Your task to perform on an android device: turn on the 12-hour format for clock Image 0: 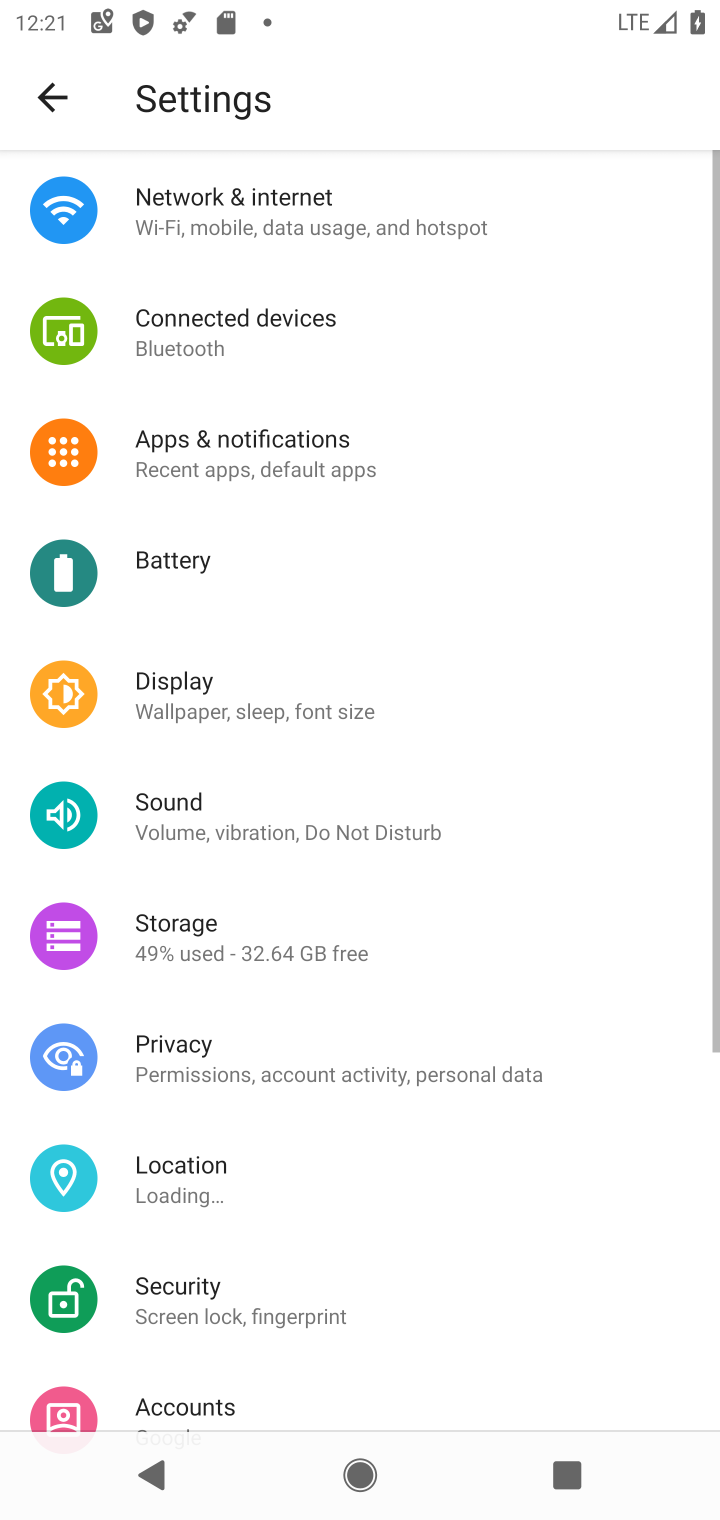
Step 0: press home button
Your task to perform on an android device: turn on the 12-hour format for clock Image 1: 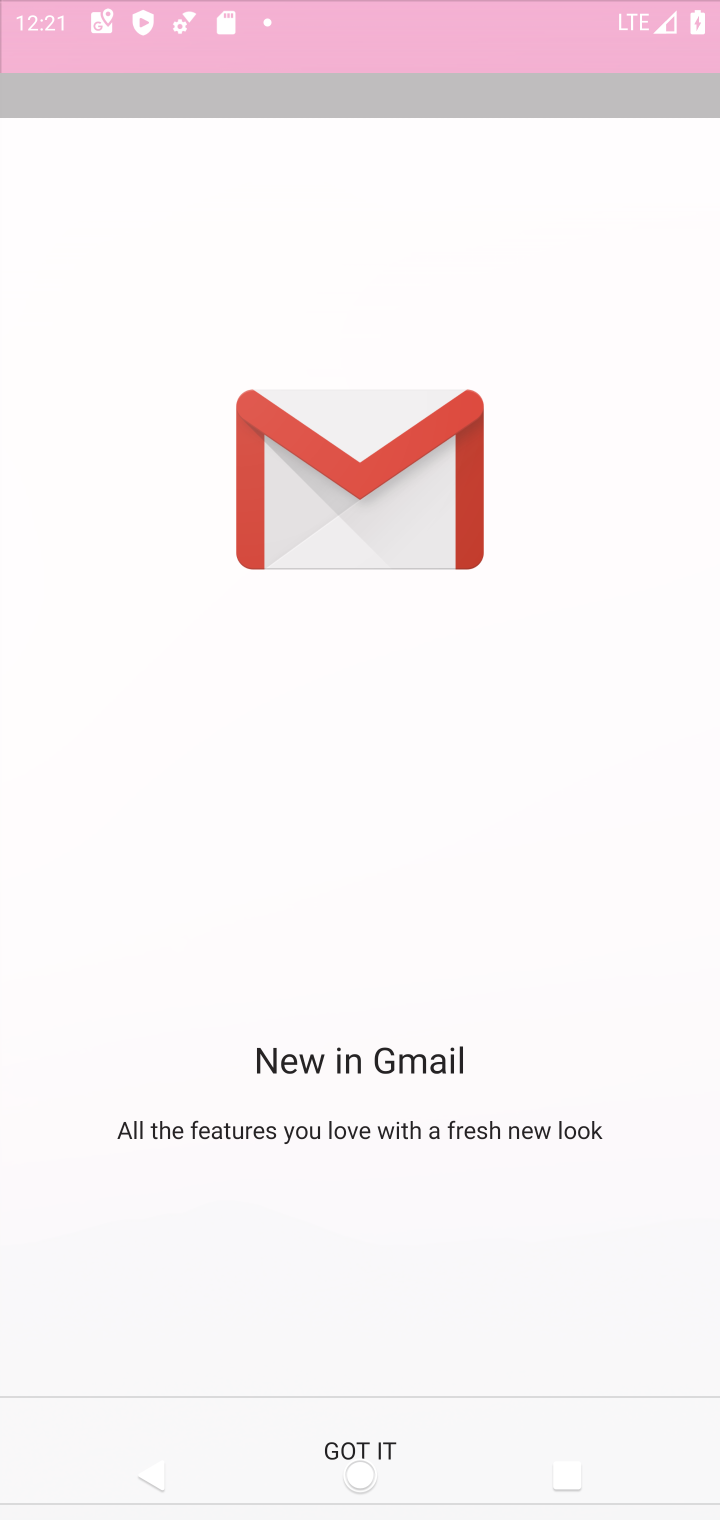
Step 1: press home button
Your task to perform on an android device: turn on the 12-hour format for clock Image 2: 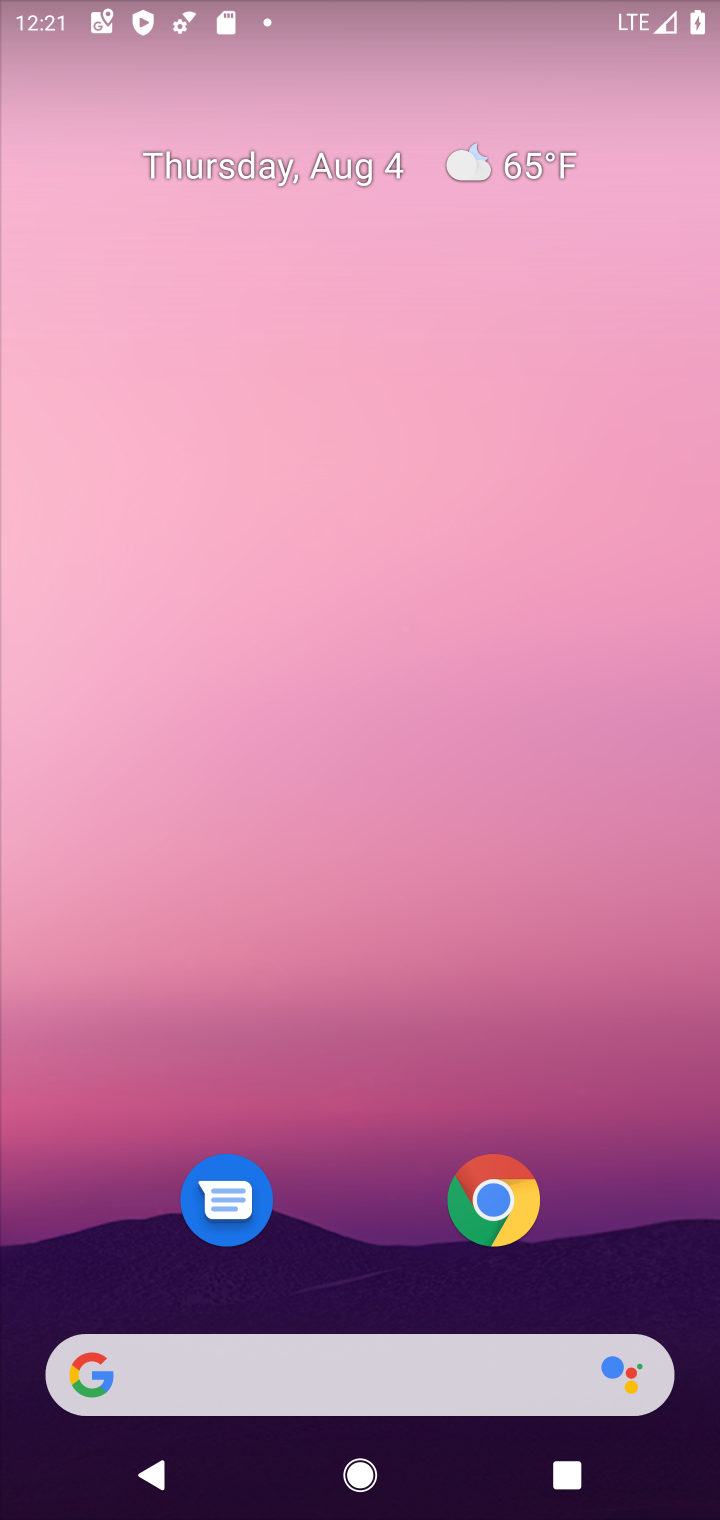
Step 2: drag from (409, 1171) to (372, 339)
Your task to perform on an android device: turn on the 12-hour format for clock Image 3: 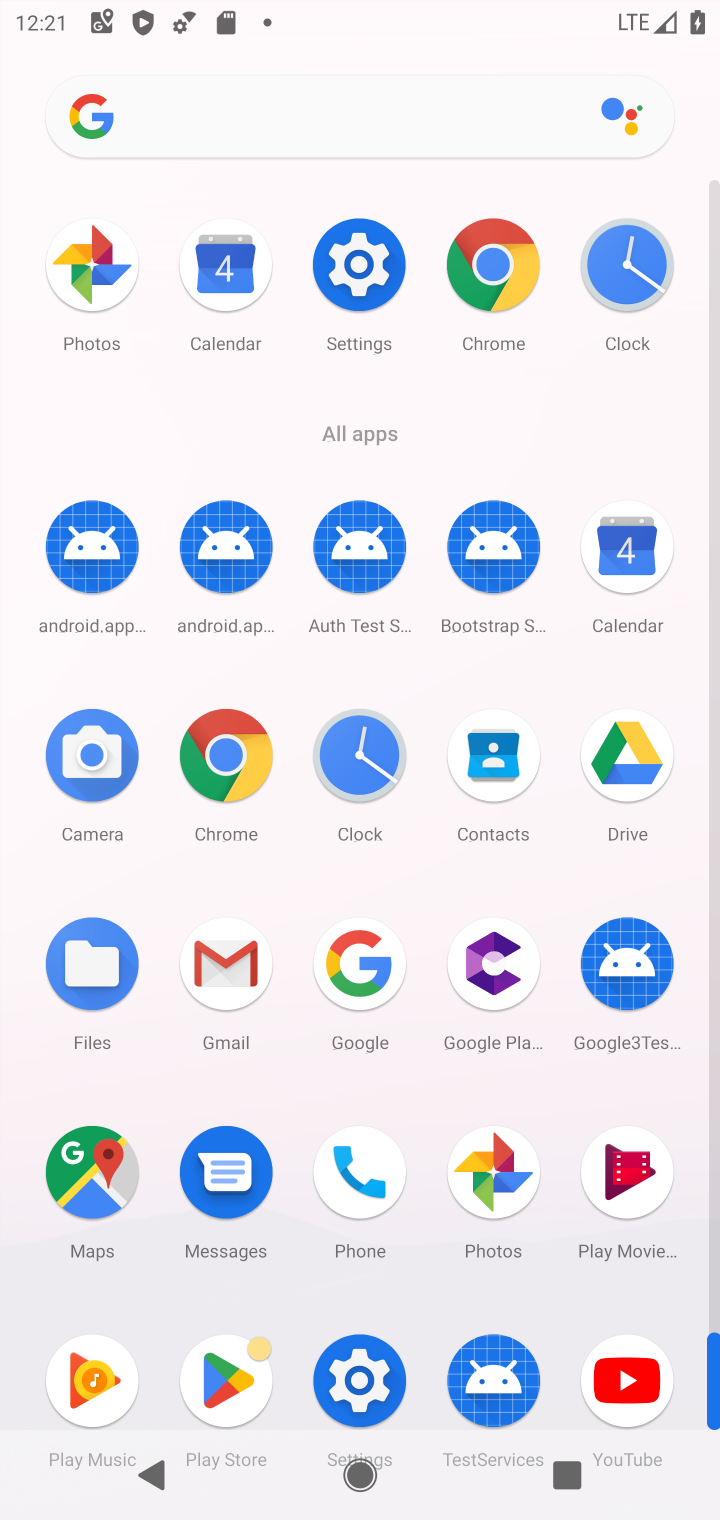
Step 3: click (623, 273)
Your task to perform on an android device: turn on the 12-hour format for clock Image 4: 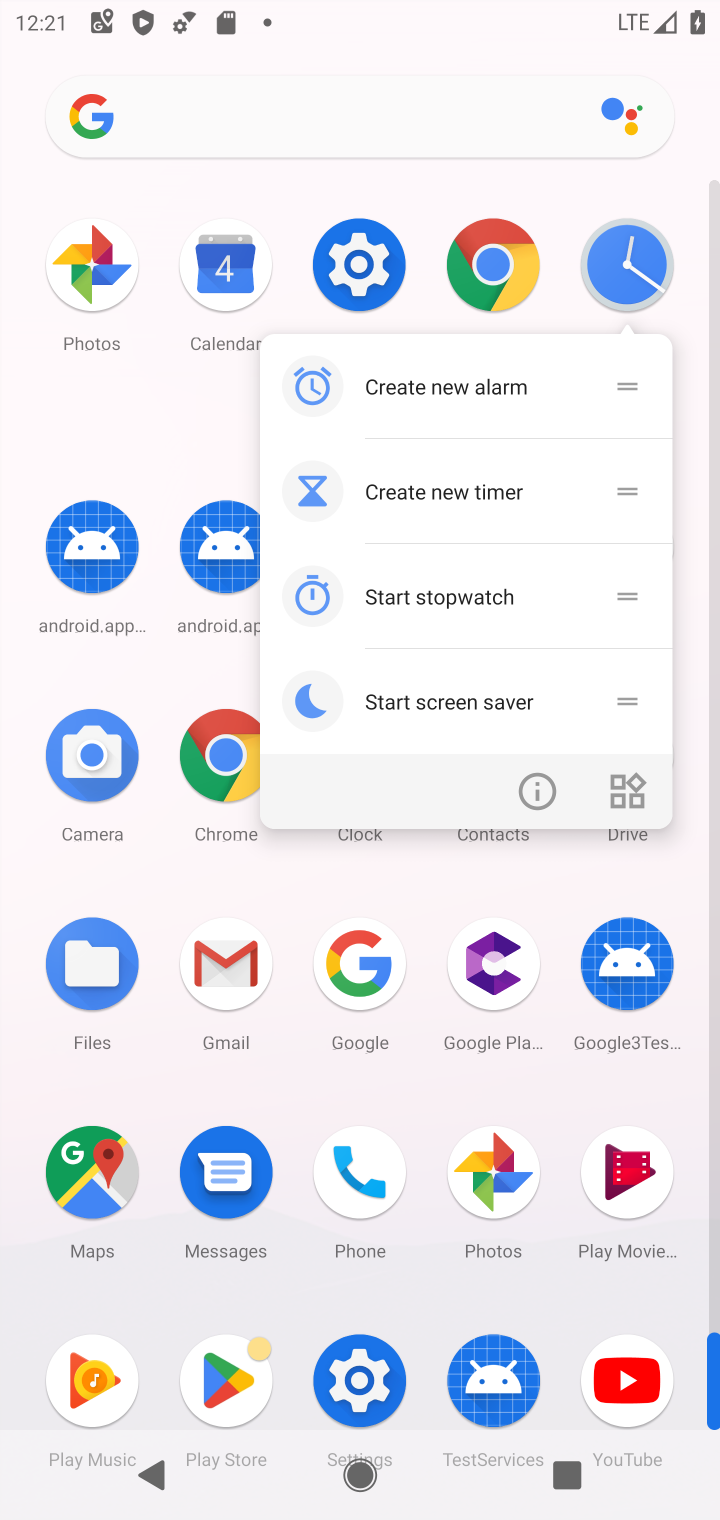
Step 4: click (623, 273)
Your task to perform on an android device: turn on the 12-hour format for clock Image 5: 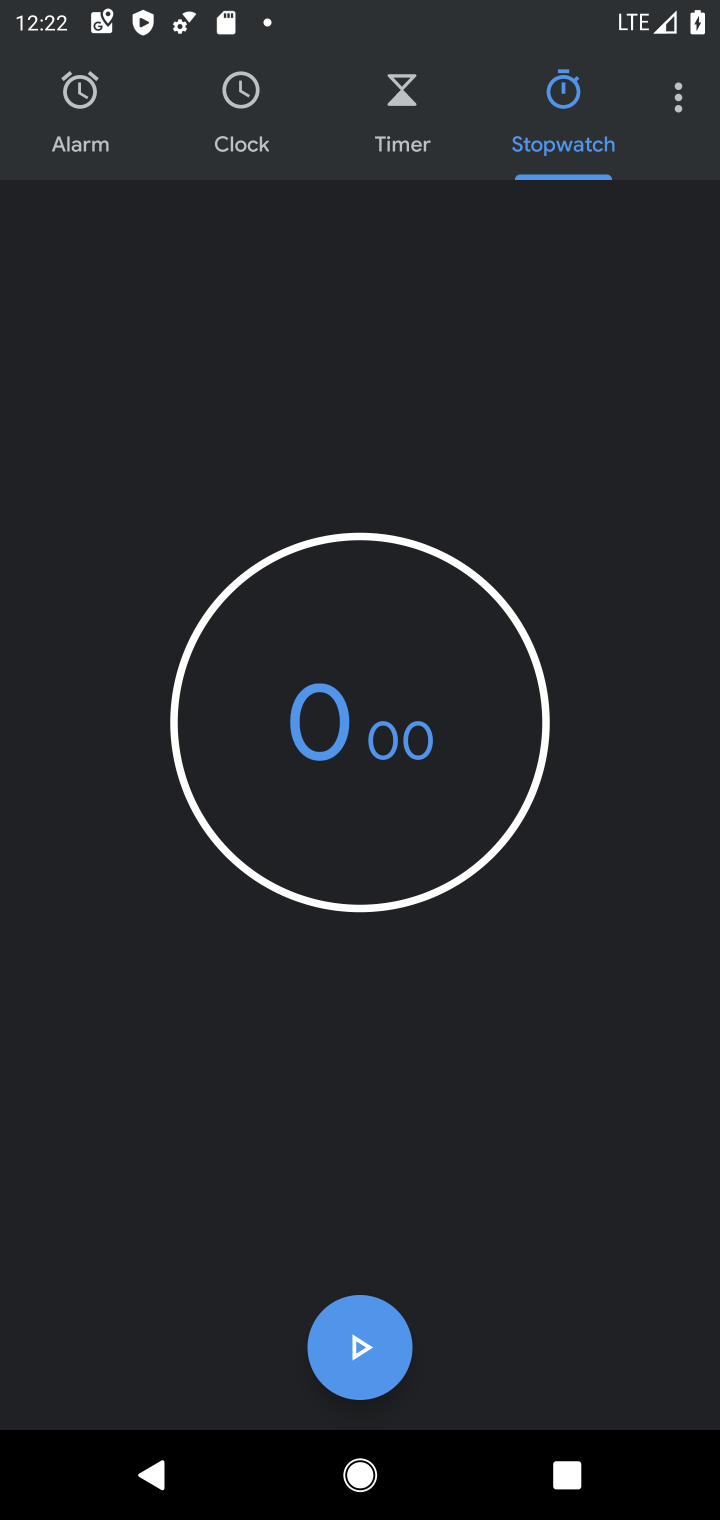
Step 5: click (695, 97)
Your task to perform on an android device: turn on the 12-hour format for clock Image 6: 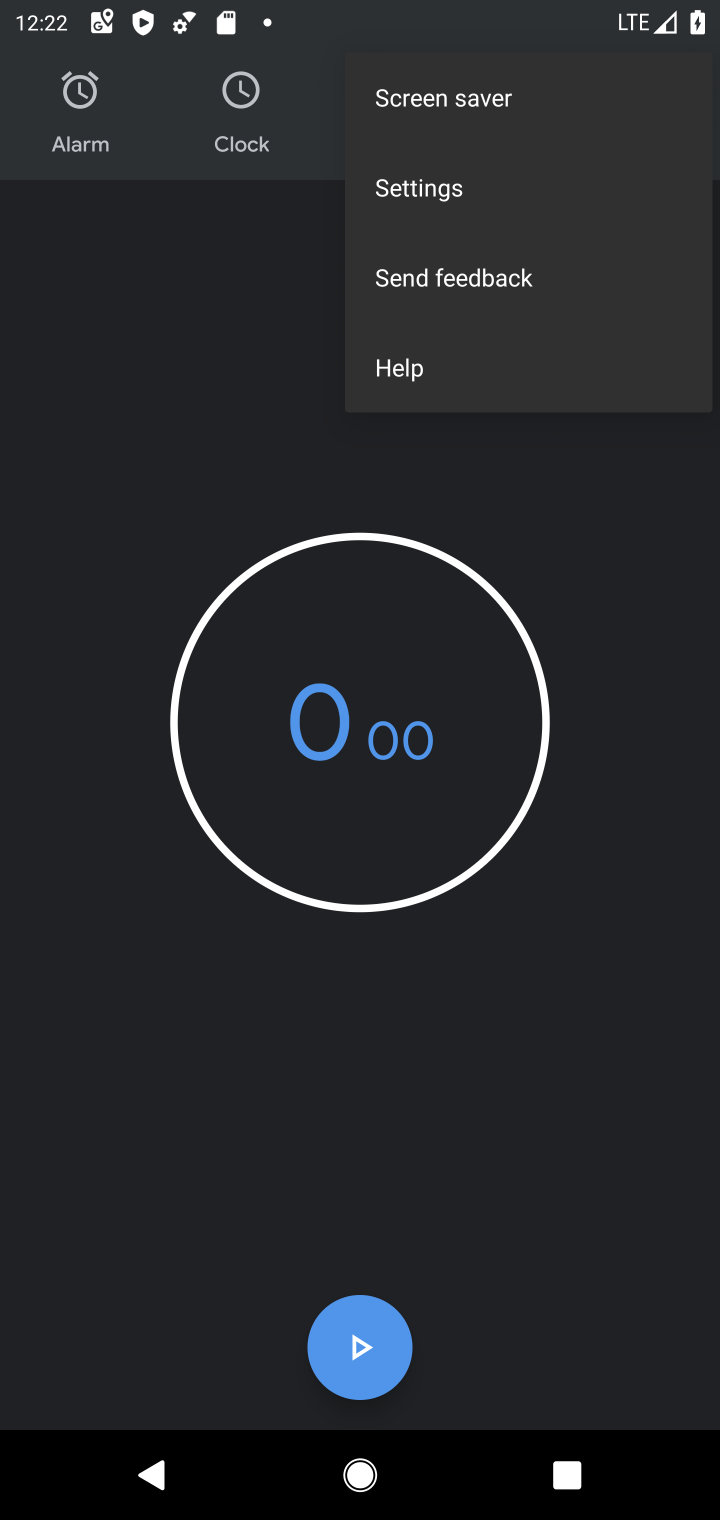
Step 6: click (447, 190)
Your task to perform on an android device: turn on the 12-hour format for clock Image 7: 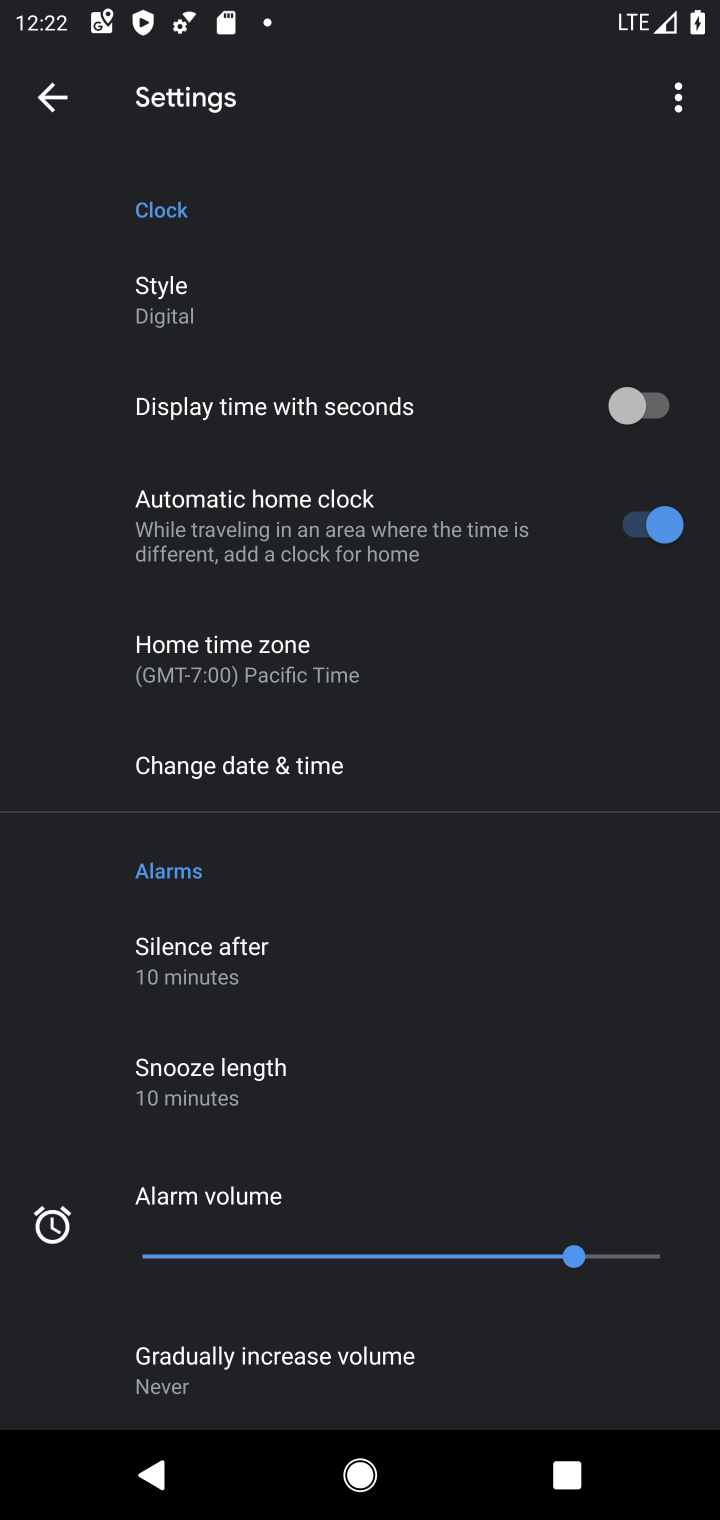
Step 7: click (237, 758)
Your task to perform on an android device: turn on the 12-hour format for clock Image 8: 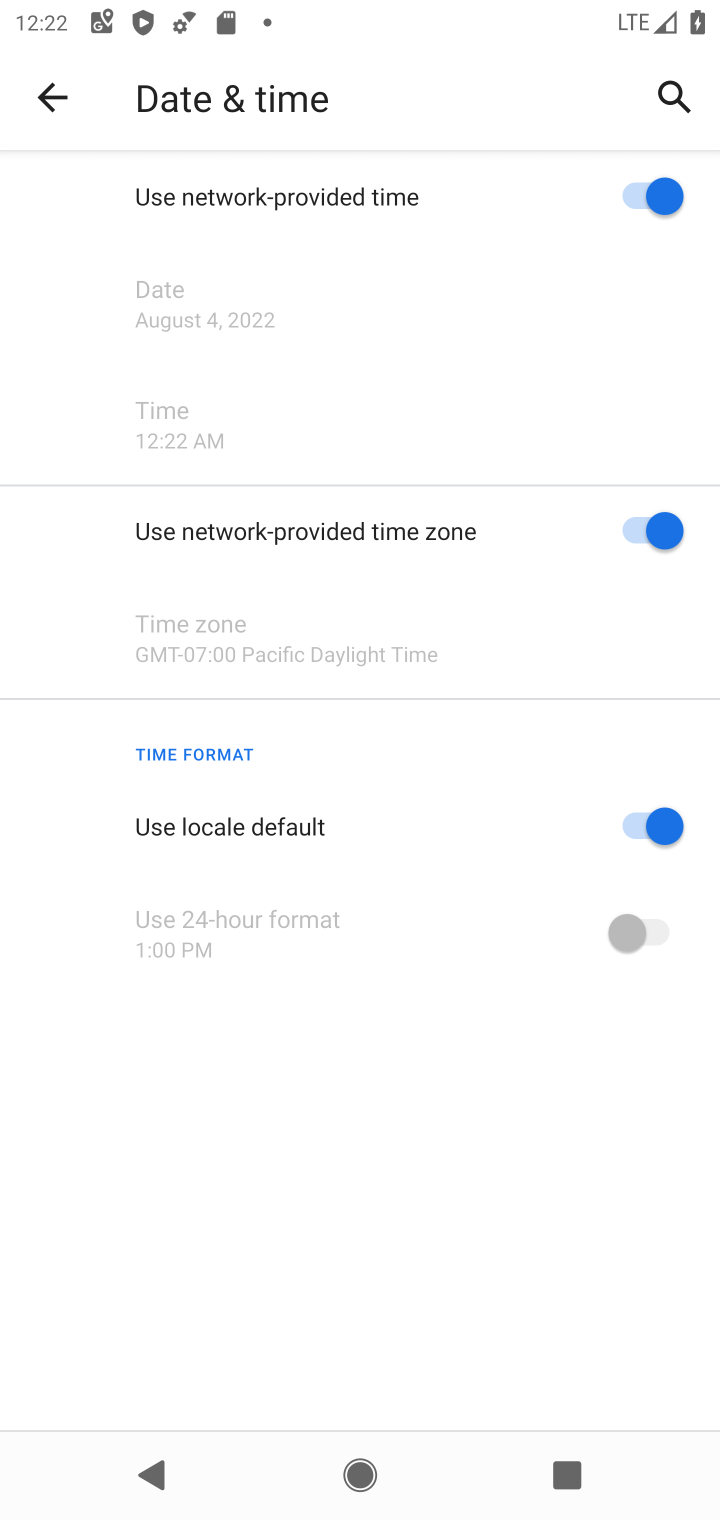
Step 8: click (642, 834)
Your task to perform on an android device: turn on the 12-hour format for clock Image 9: 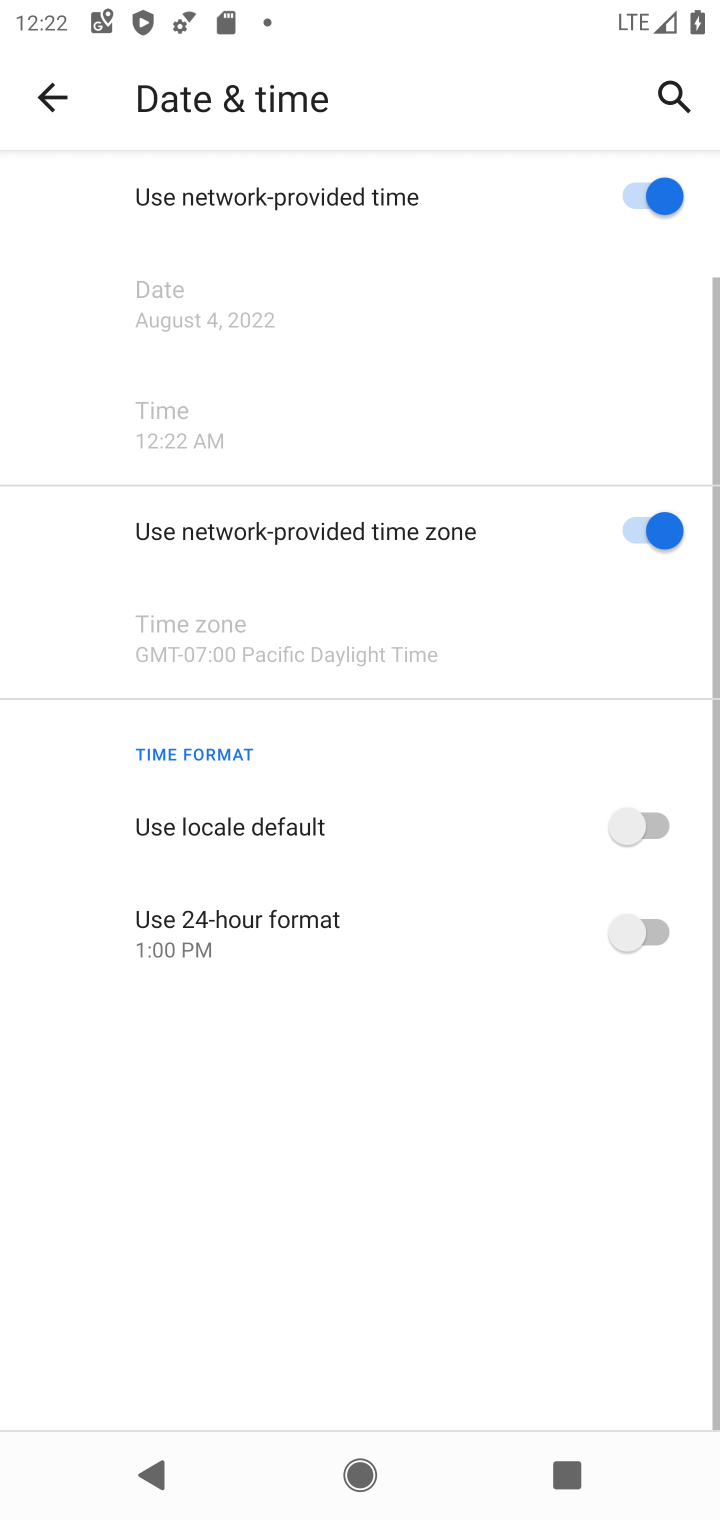
Step 9: click (621, 945)
Your task to perform on an android device: turn on the 12-hour format for clock Image 10: 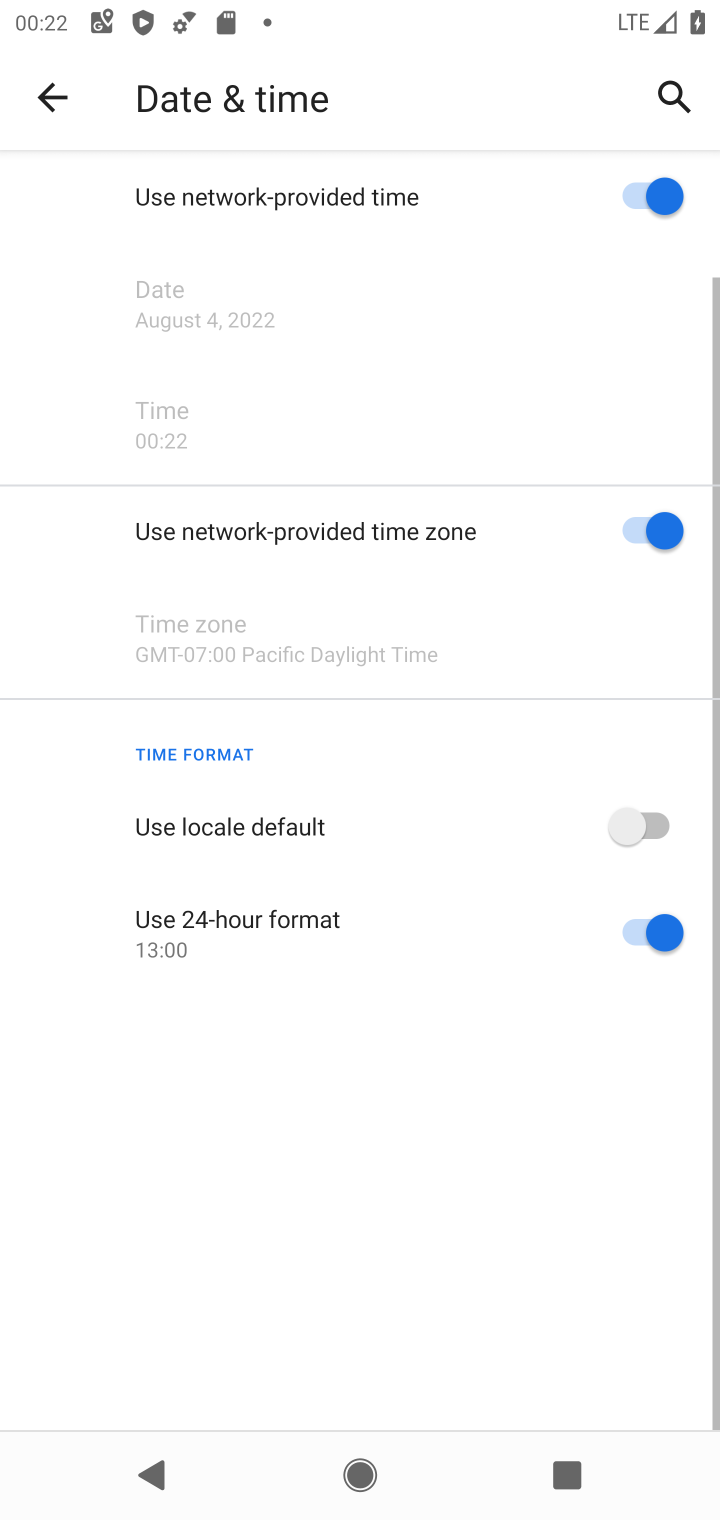
Step 10: task complete